Your task to perform on an android device: change text size in settings app Image 0: 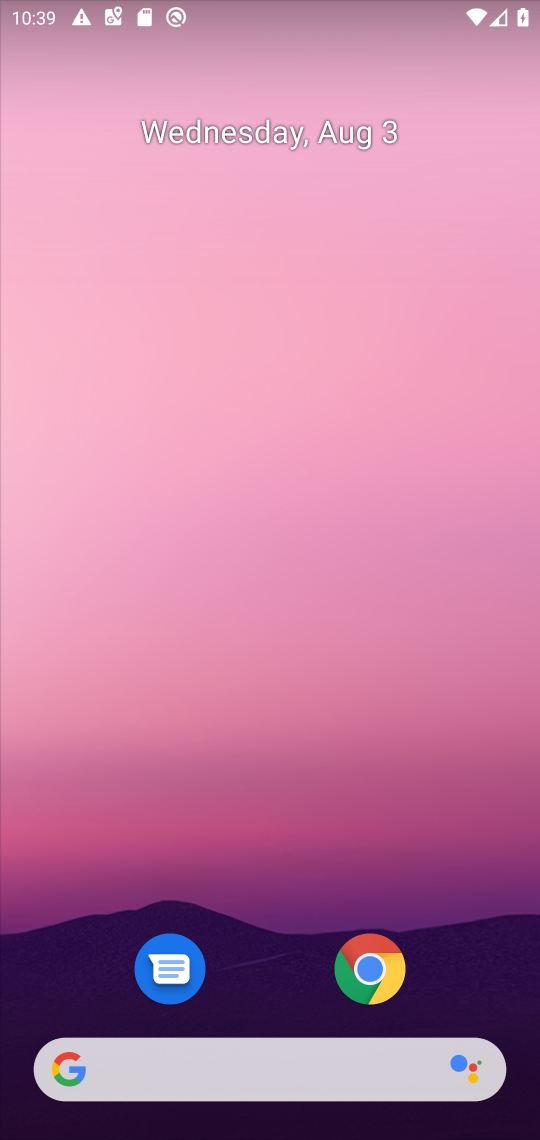
Step 0: drag from (304, 1032) to (309, 101)
Your task to perform on an android device: change text size in settings app Image 1: 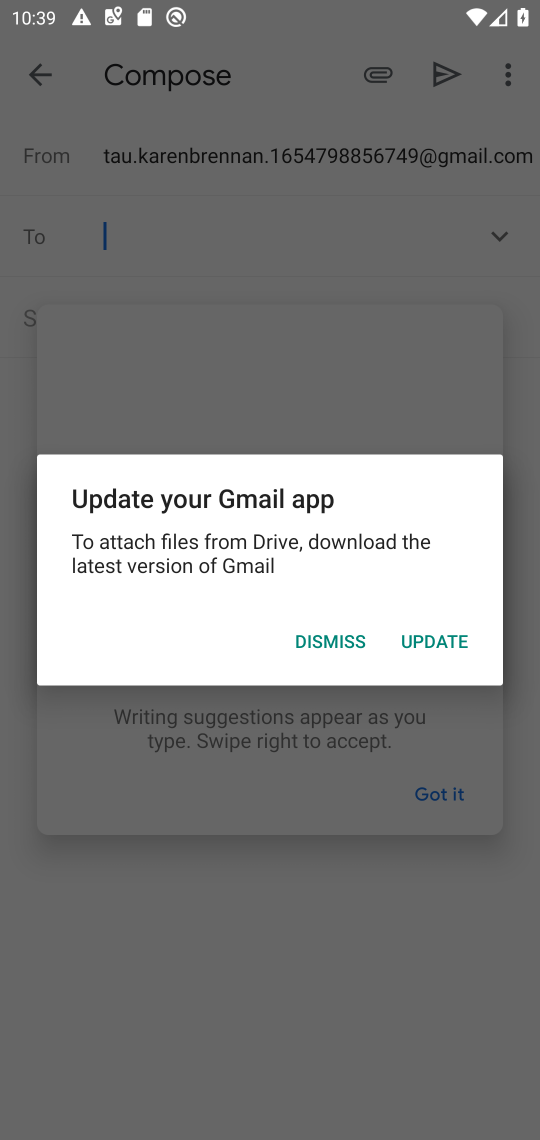
Step 1: click (460, 214)
Your task to perform on an android device: change text size in settings app Image 2: 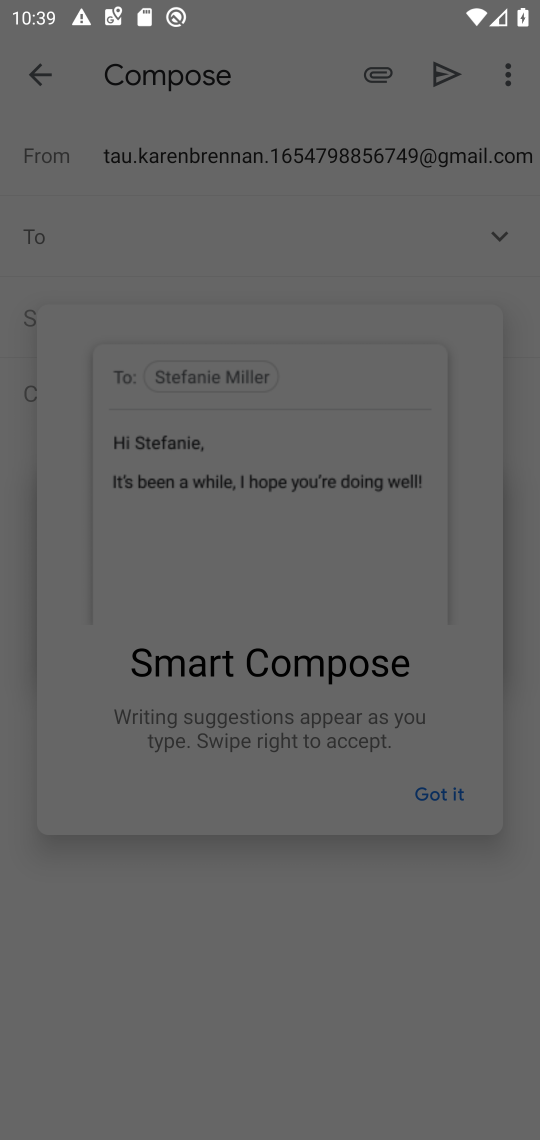
Step 2: press home button
Your task to perform on an android device: change text size in settings app Image 3: 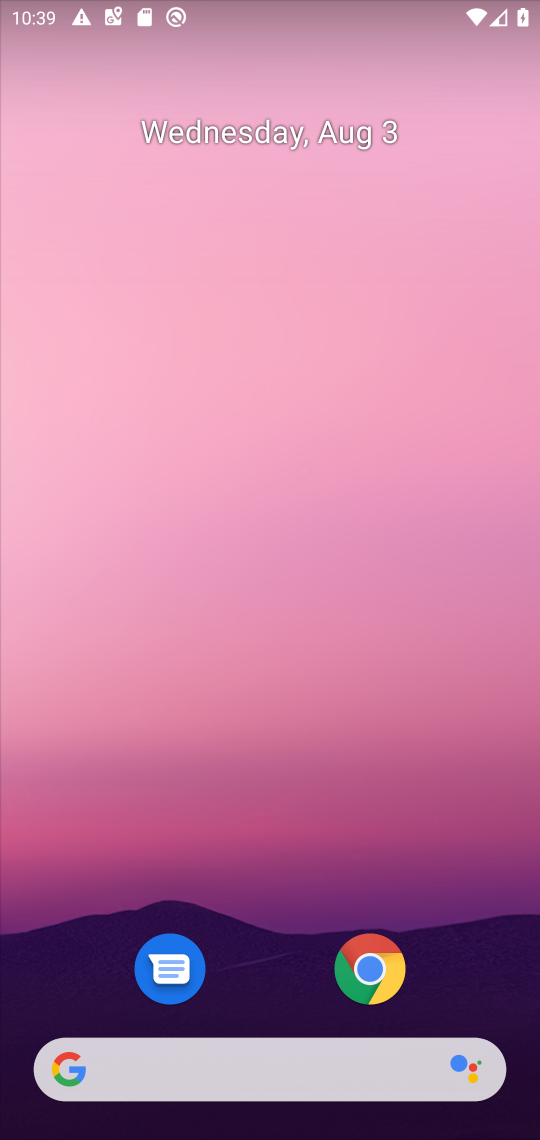
Step 3: drag from (258, 1012) to (243, 25)
Your task to perform on an android device: change text size in settings app Image 4: 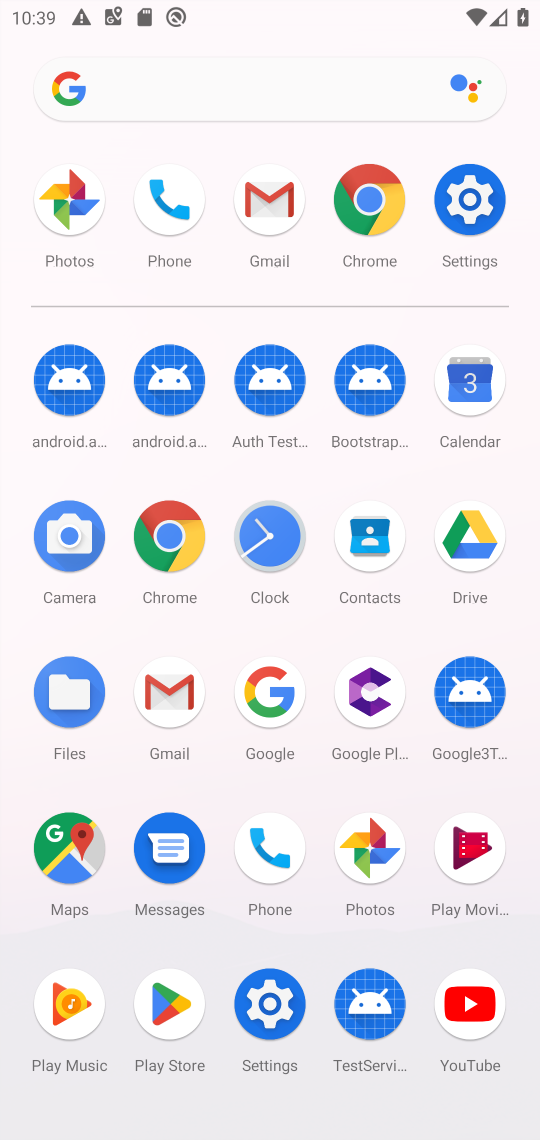
Step 4: click (465, 222)
Your task to perform on an android device: change text size in settings app Image 5: 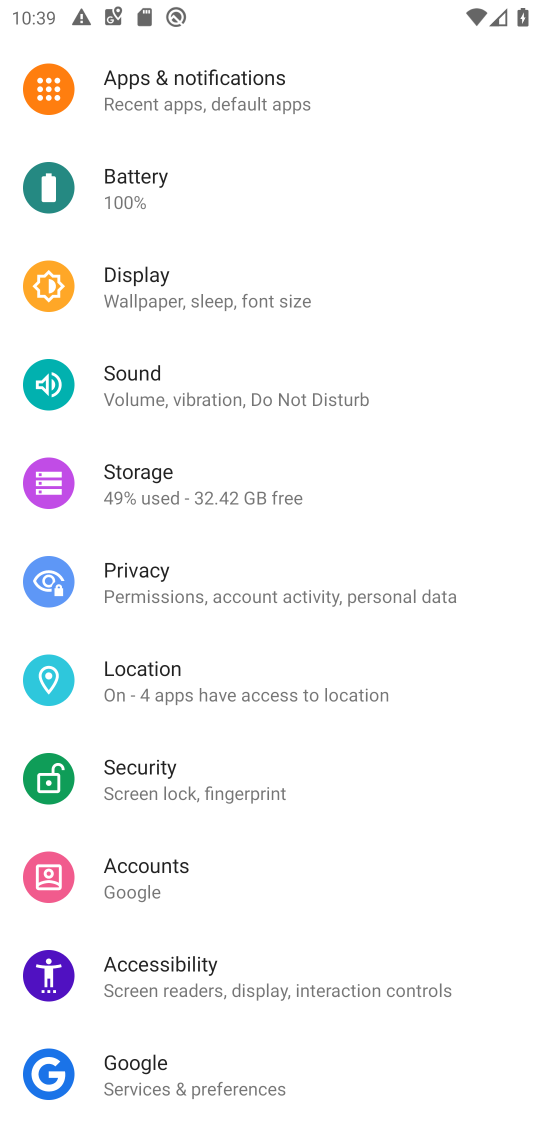
Step 5: click (141, 276)
Your task to perform on an android device: change text size in settings app Image 6: 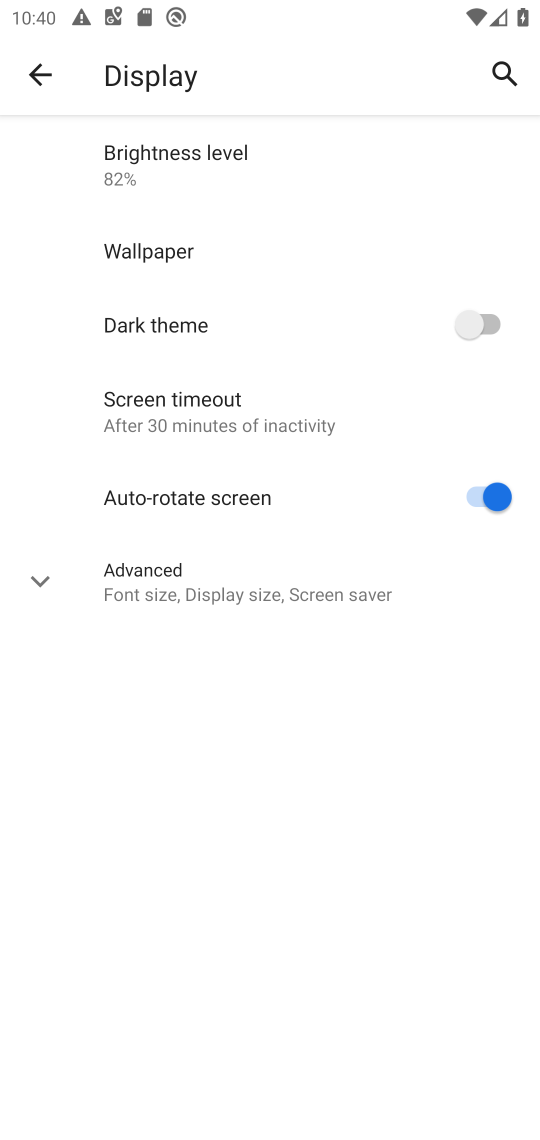
Step 6: click (197, 588)
Your task to perform on an android device: change text size in settings app Image 7: 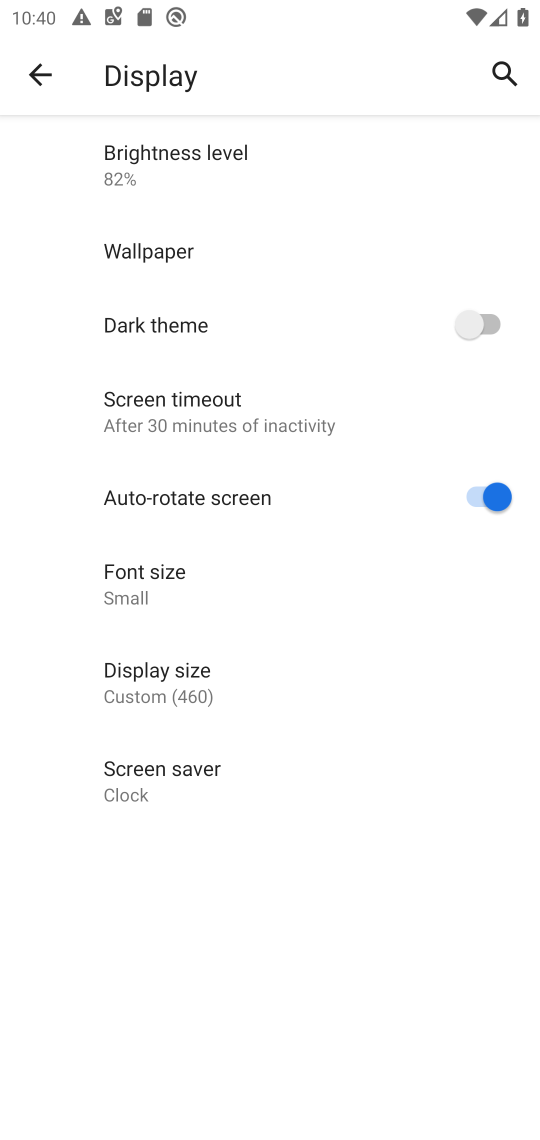
Step 7: click (180, 672)
Your task to perform on an android device: change text size in settings app Image 8: 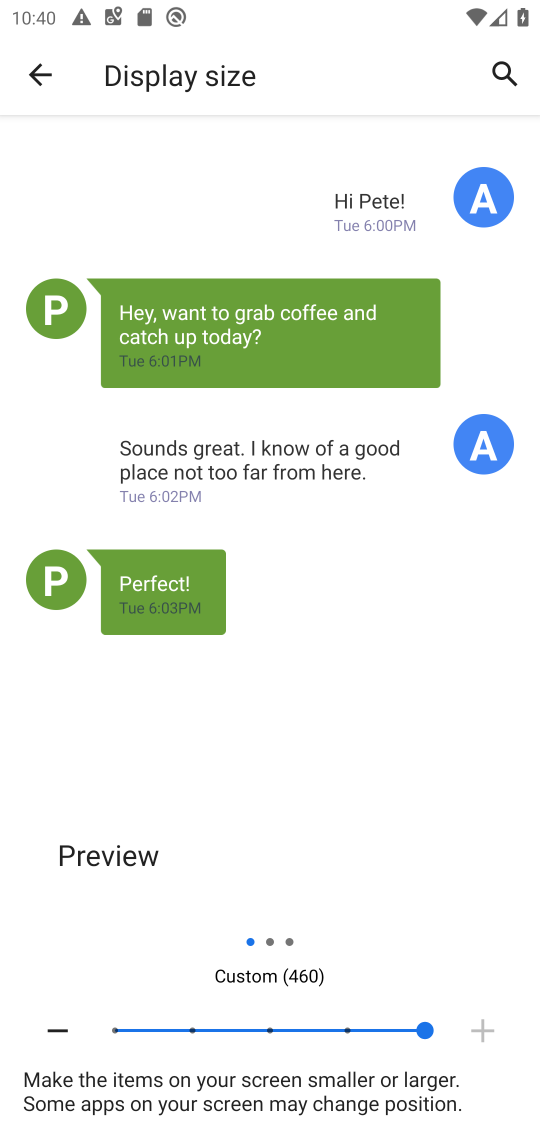
Step 8: click (35, 80)
Your task to perform on an android device: change text size in settings app Image 9: 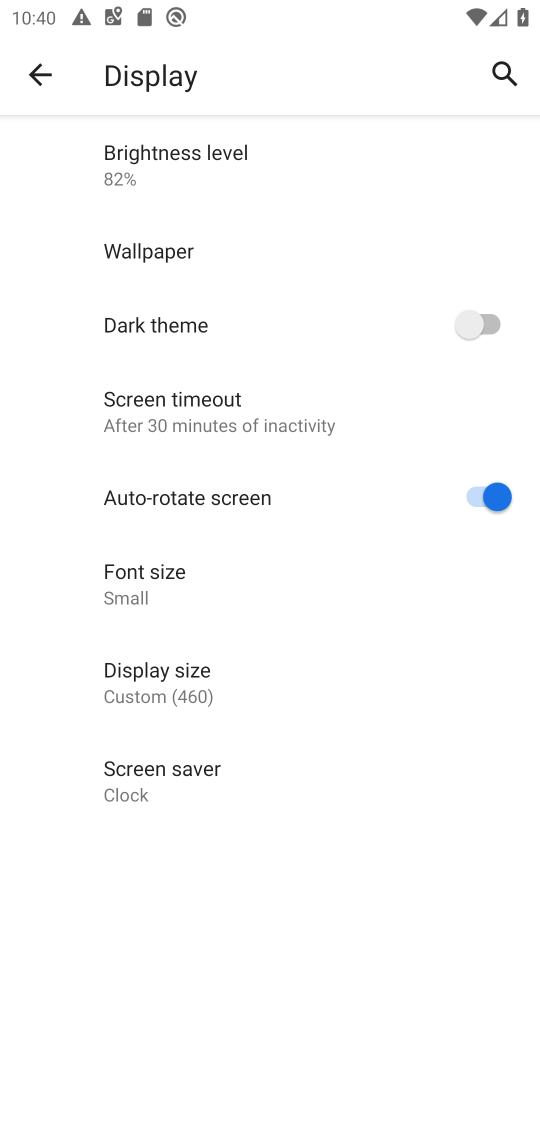
Step 9: click (157, 579)
Your task to perform on an android device: change text size in settings app Image 10: 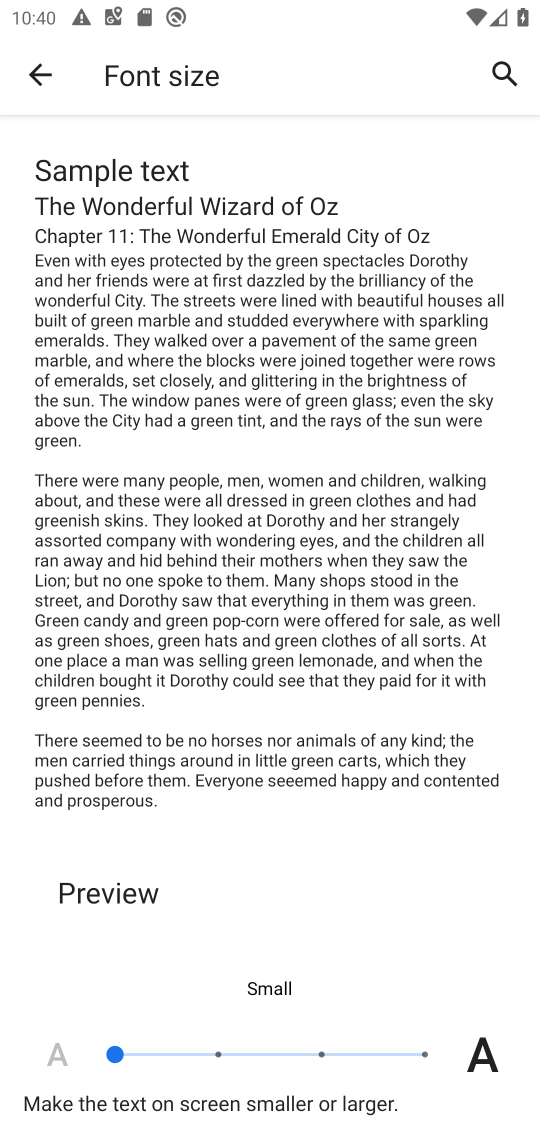
Step 10: click (220, 1046)
Your task to perform on an android device: change text size in settings app Image 11: 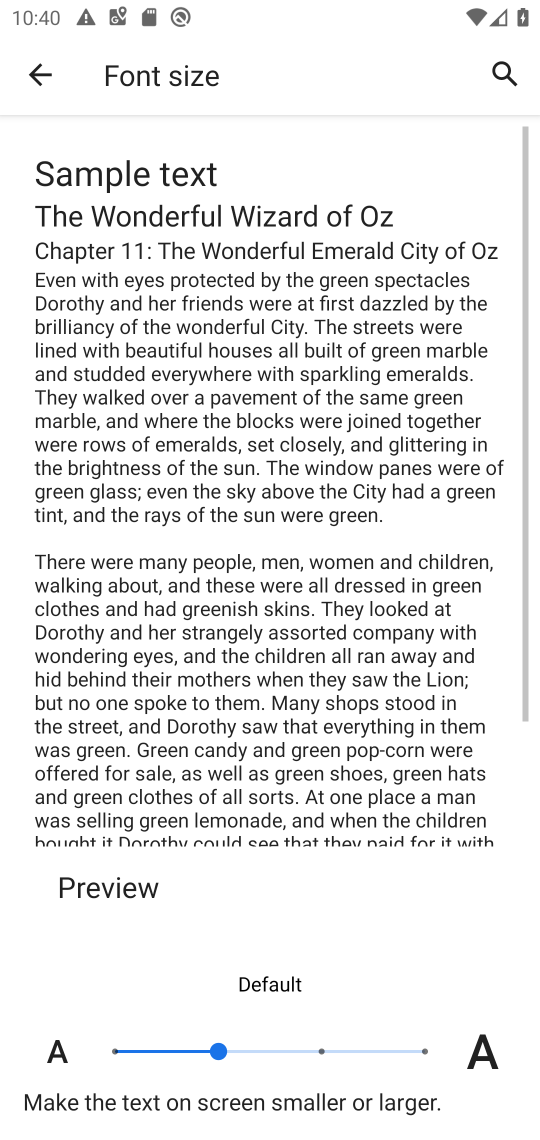
Step 11: task complete